Your task to perform on an android device: Open display settings Image 0: 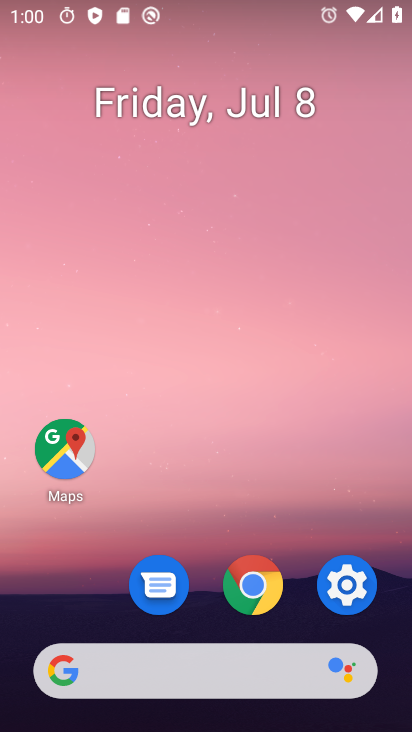
Step 0: click (333, 598)
Your task to perform on an android device: Open display settings Image 1: 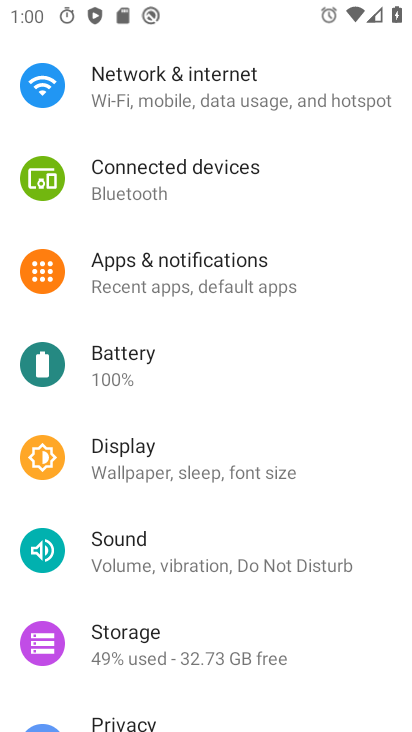
Step 1: click (155, 457)
Your task to perform on an android device: Open display settings Image 2: 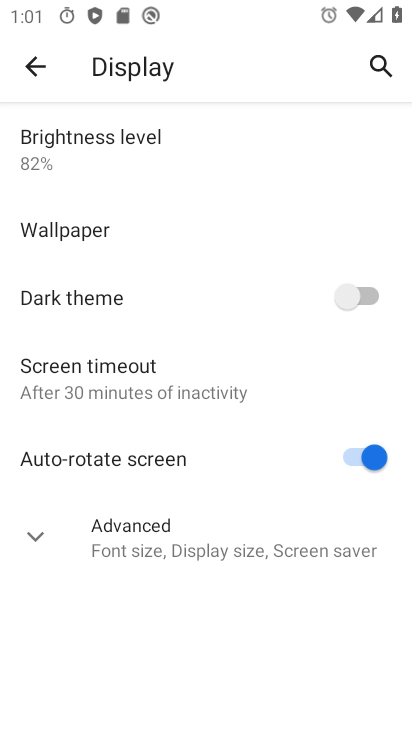
Step 2: task complete